Your task to perform on an android device: make emails show in primary in the gmail app Image 0: 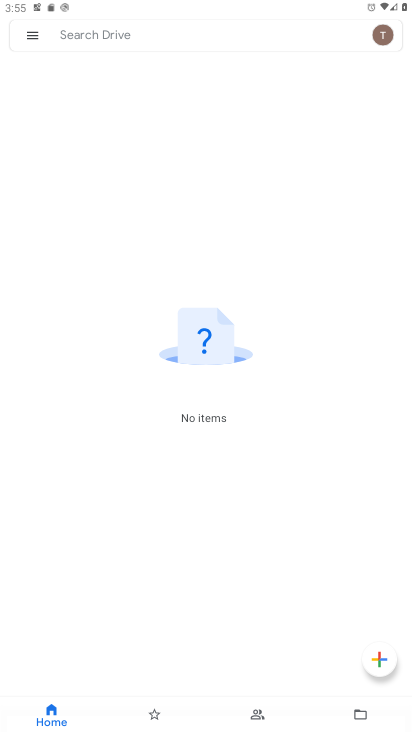
Step 0: press home button
Your task to perform on an android device: make emails show in primary in the gmail app Image 1: 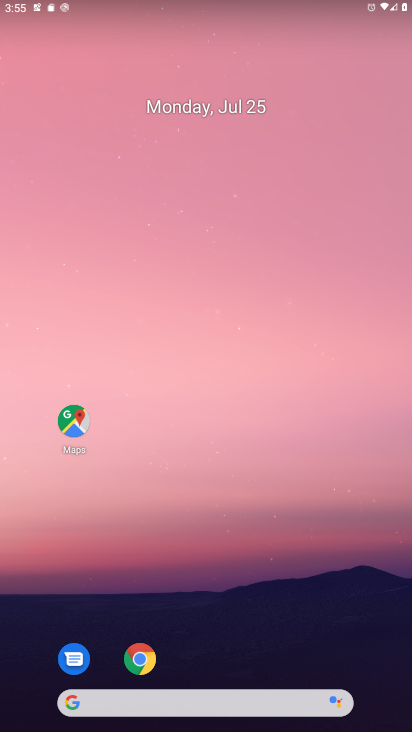
Step 1: drag from (190, 653) to (191, 126)
Your task to perform on an android device: make emails show in primary in the gmail app Image 2: 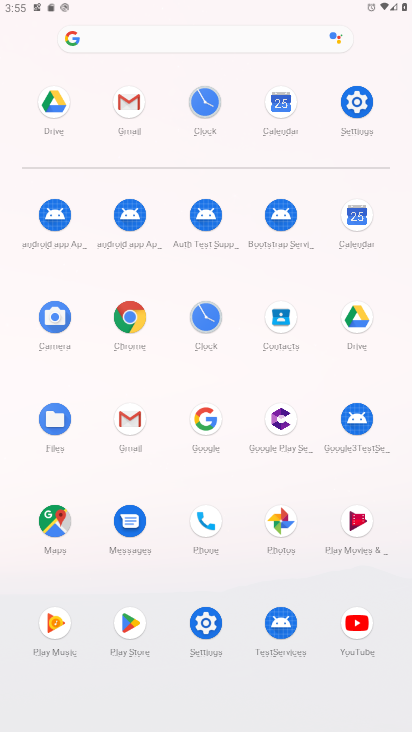
Step 2: click (126, 432)
Your task to perform on an android device: make emails show in primary in the gmail app Image 3: 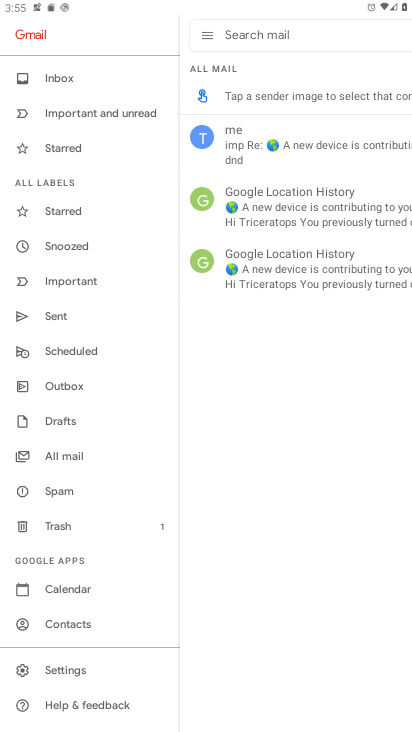
Step 3: click (71, 675)
Your task to perform on an android device: make emails show in primary in the gmail app Image 4: 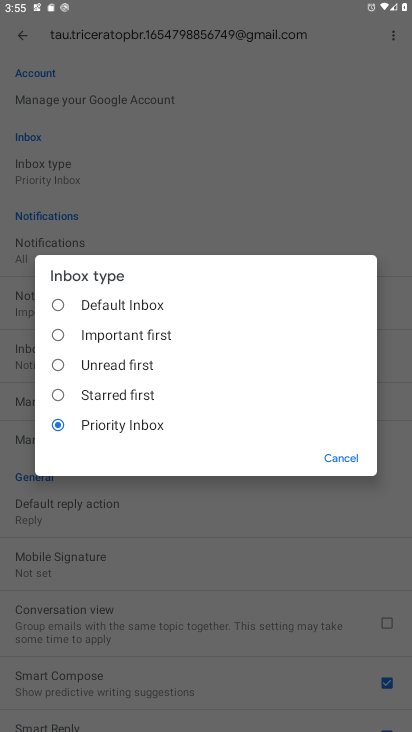
Step 4: click (332, 450)
Your task to perform on an android device: make emails show in primary in the gmail app Image 5: 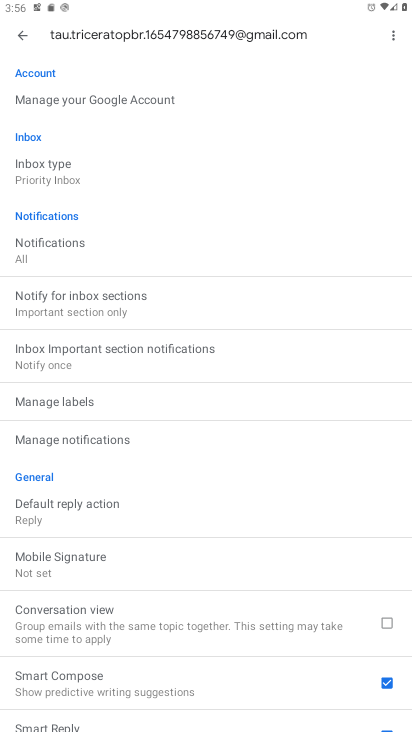
Step 5: task complete